Your task to perform on an android device: Search for vegetarian restaurants on Maps Image 0: 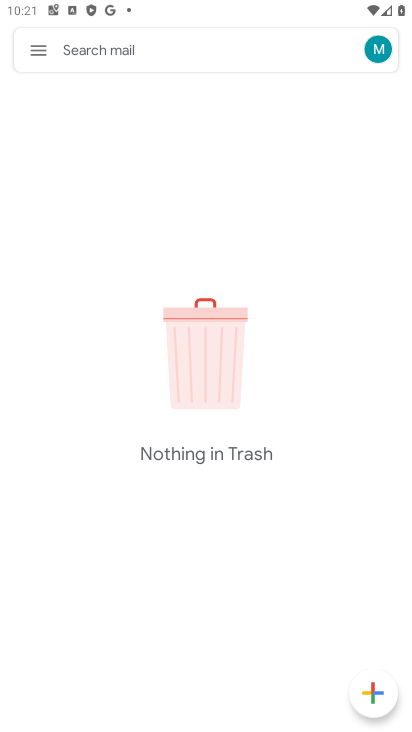
Step 0: press home button
Your task to perform on an android device: Search for vegetarian restaurants on Maps Image 1: 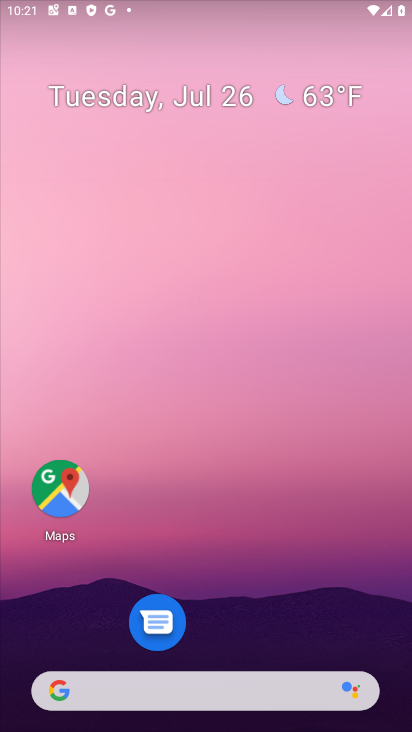
Step 1: drag from (288, 658) to (364, 49)
Your task to perform on an android device: Search for vegetarian restaurants on Maps Image 2: 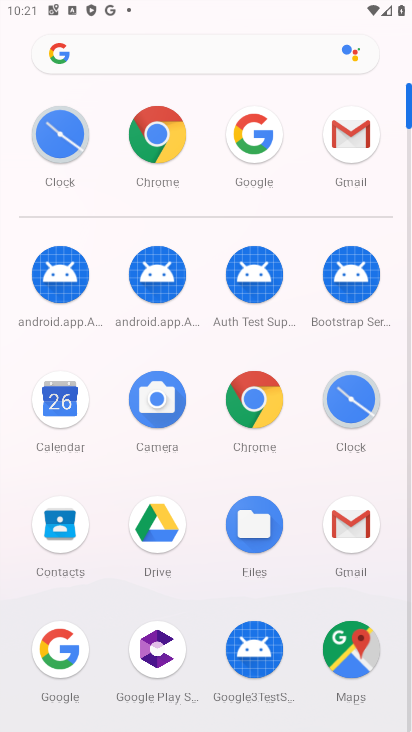
Step 2: click (332, 677)
Your task to perform on an android device: Search for vegetarian restaurants on Maps Image 3: 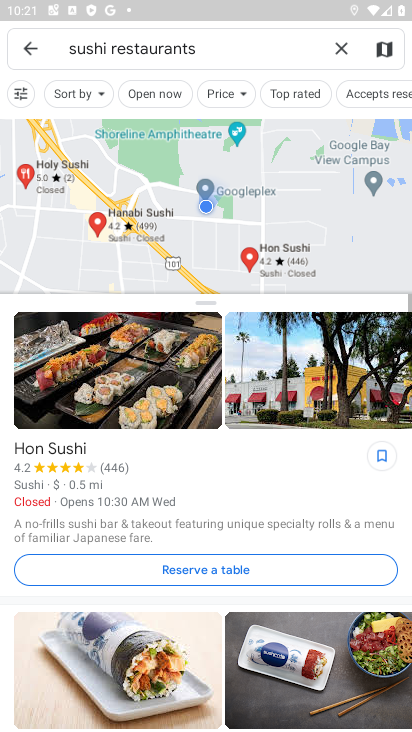
Step 3: click (346, 46)
Your task to perform on an android device: Search for vegetarian restaurants on Maps Image 4: 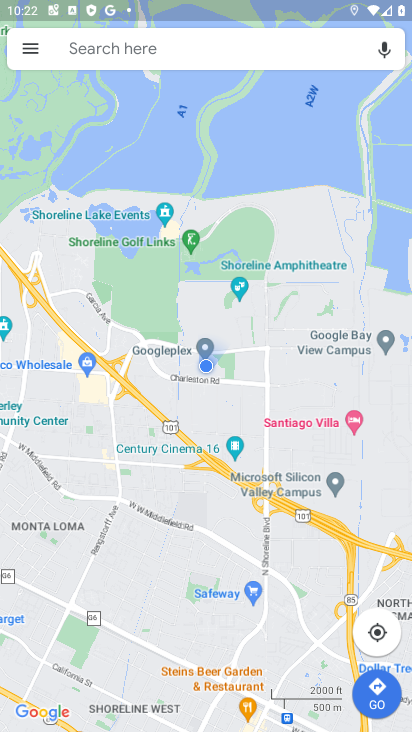
Step 4: click (250, 69)
Your task to perform on an android device: Search for vegetarian restaurants on Maps Image 5: 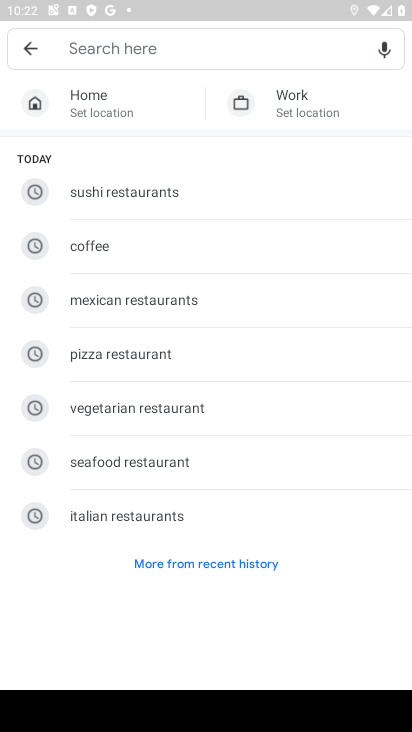
Step 5: click (95, 416)
Your task to perform on an android device: Search for vegetarian restaurants on Maps Image 6: 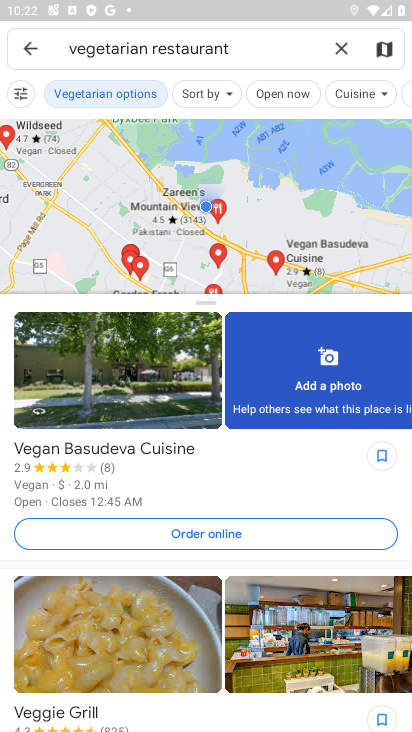
Step 6: task complete